Your task to perform on an android device: search for starred emails in the gmail app Image 0: 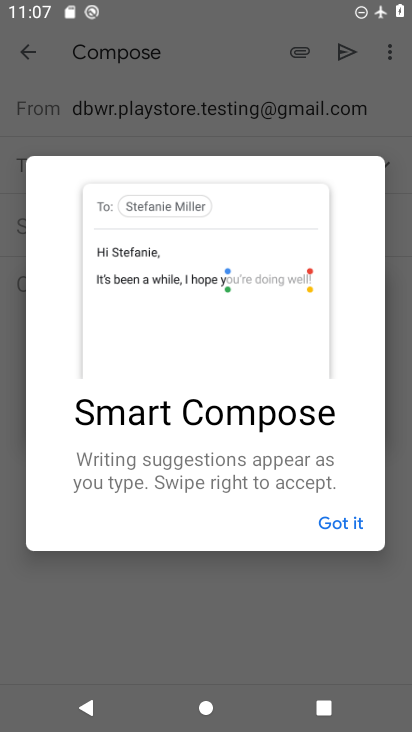
Step 0: press home button
Your task to perform on an android device: search for starred emails in the gmail app Image 1: 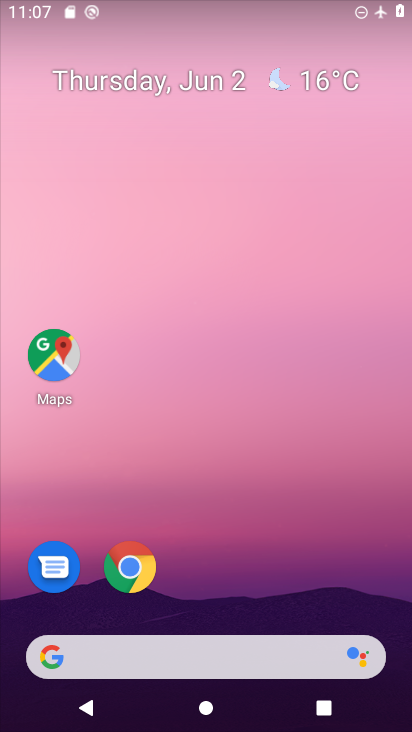
Step 1: drag from (243, 555) to (257, 176)
Your task to perform on an android device: search for starred emails in the gmail app Image 2: 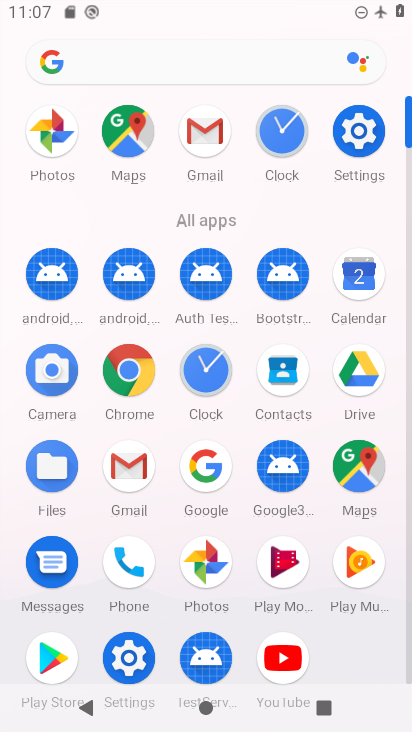
Step 2: click (199, 144)
Your task to perform on an android device: search for starred emails in the gmail app Image 3: 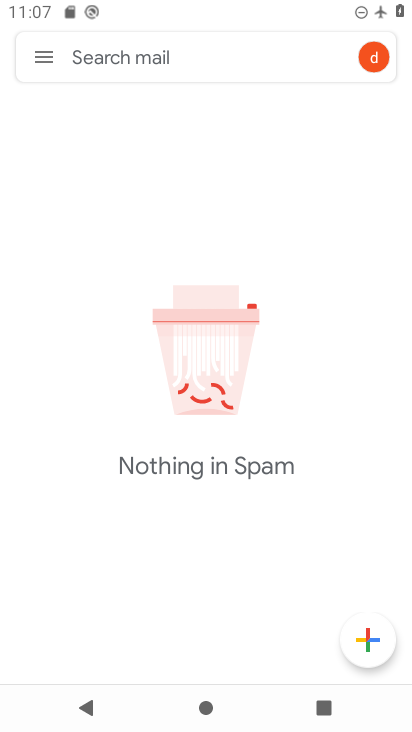
Step 3: click (36, 58)
Your task to perform on an android device: search for starred emails in the gmail app Image 4: 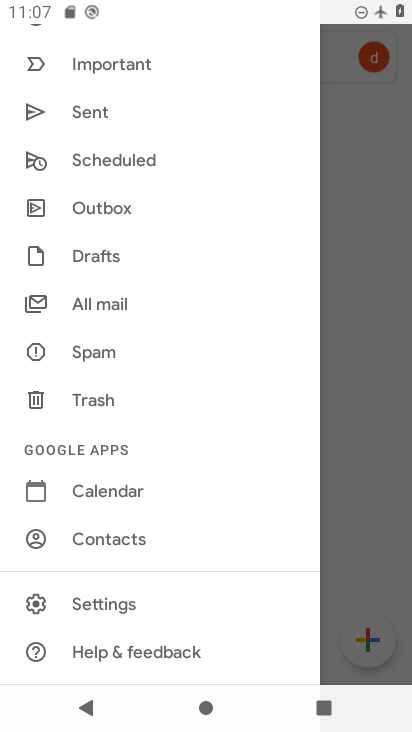
Step 4: drag from (103, 196) to (103, 459)
Your task to perform on an android device: search for starred emails in the gmail app Image 5: 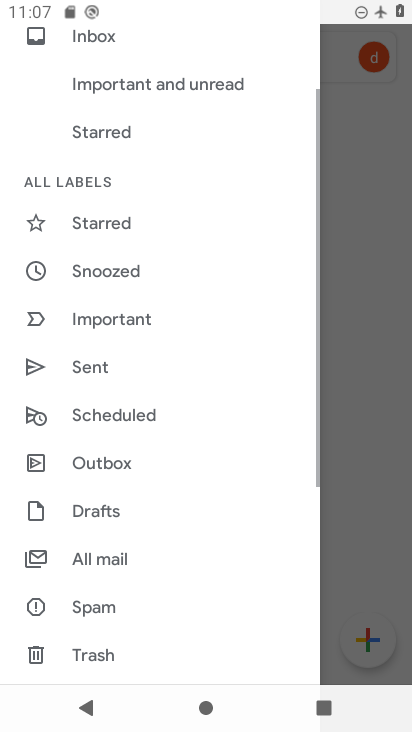
Step 5: click (118, 216)
Your task to perform on an android device: search for starred emails in the gmail app Image 6: 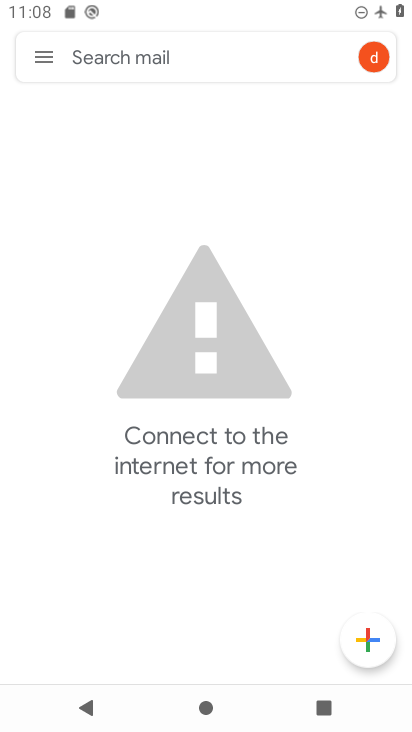
Step 6: task complete